Your task to perform on an android device: Open Wikipedia Image 0: 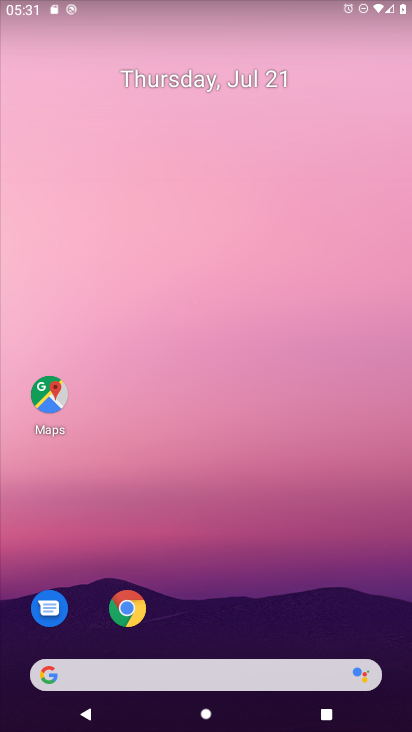
Step 0: drag from (268, 666) to (316, 1)
Your task to perform on an android device: Open Wikipedia Image 1: 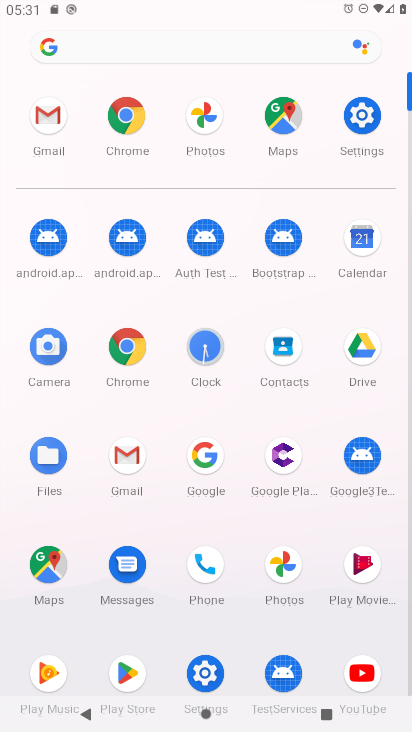
Step 1: click (118, 347)
Your task to perform on an android device: Open Wikipedia Image 2: 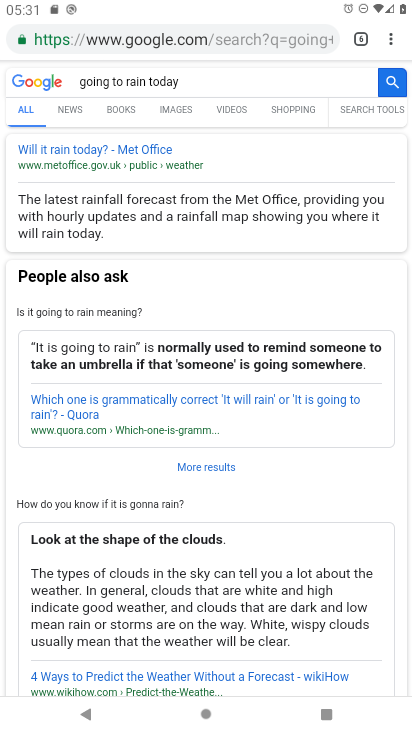
Step 2: click (241, 44)
Your task to perform on an android device: Open Wikipedia Image 3: 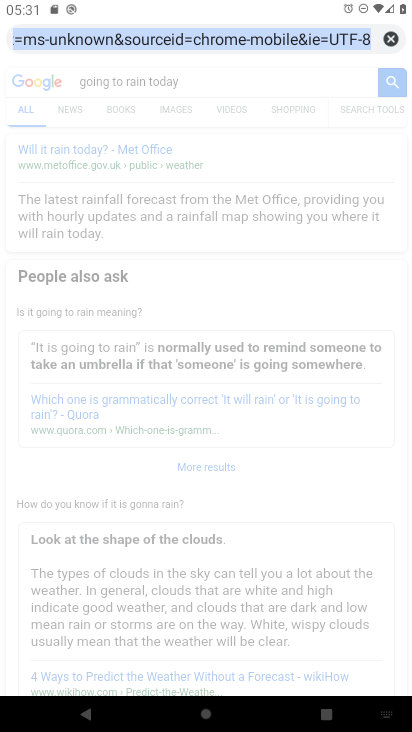
Step 3: type "wikipedia"
Your task to perform on an android device: Open Wikipedia Image 4: 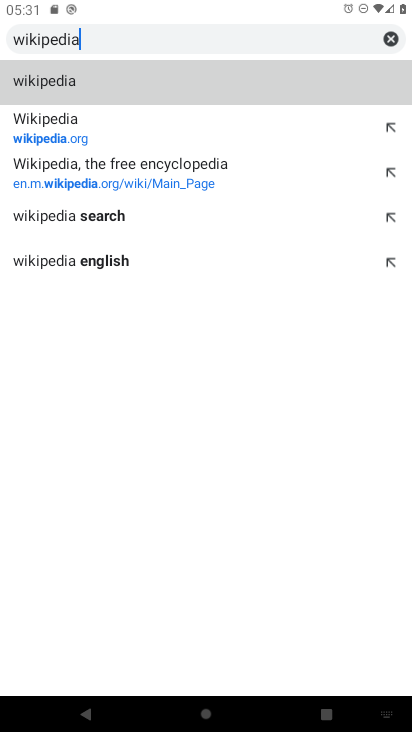
Step 4: click (68, 131)
Your task to perform on an android device: Open Wikipedia Image 5: 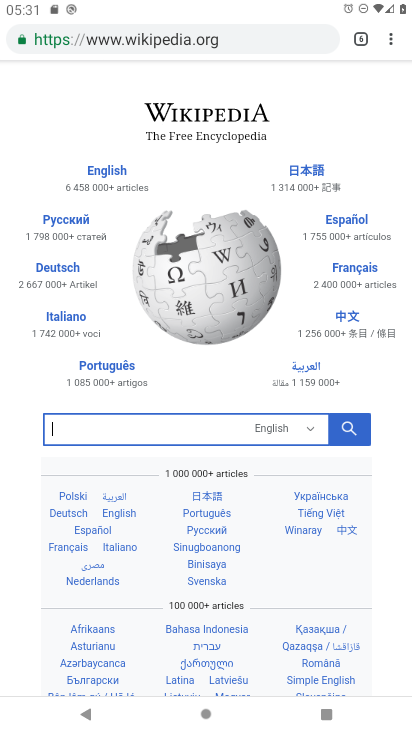
Step 5: task complete